Your task to perform on an android device: see sites visited before in the chrome app Image 0: 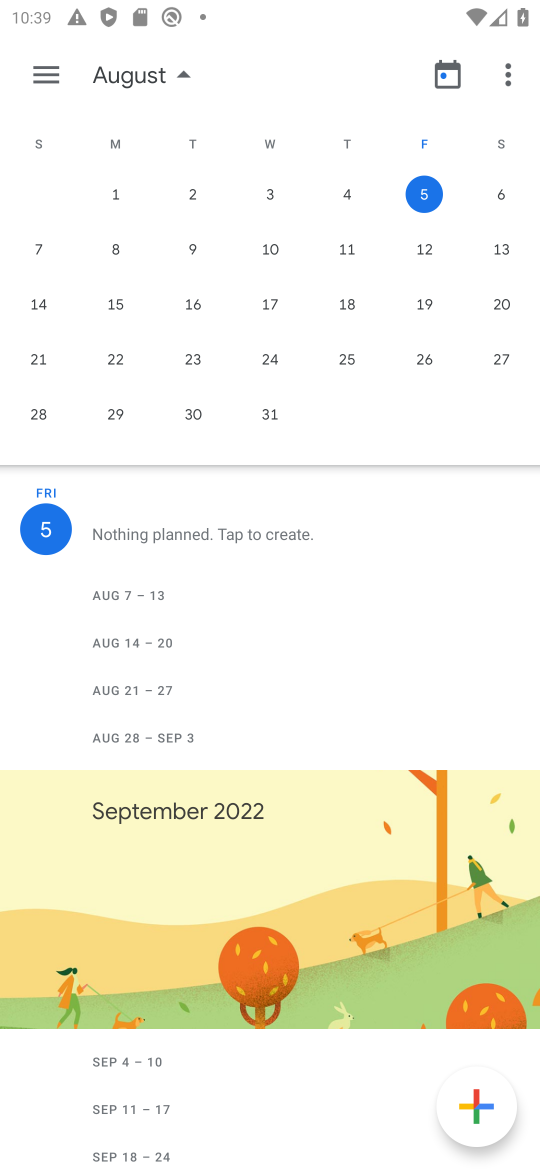
Step 0: press home button
Your task to perform on an android device: see sites visited before in the chrome app Image 1: 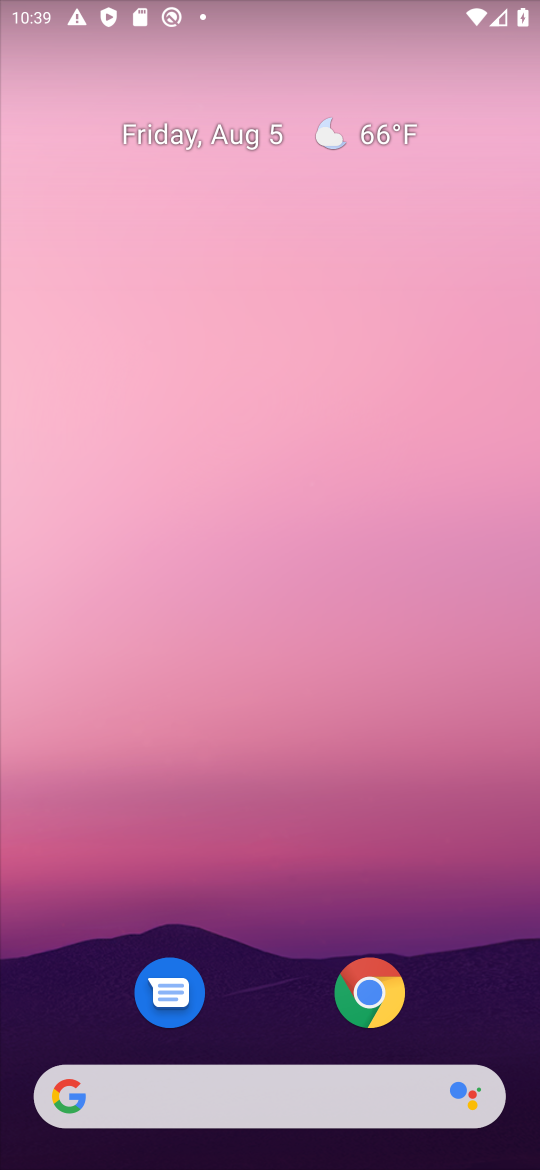
Step 1: drag from (267, 1009) to (426, 324)
Your task to perform on an android device: see sites visited before in the chrome app Image 2: 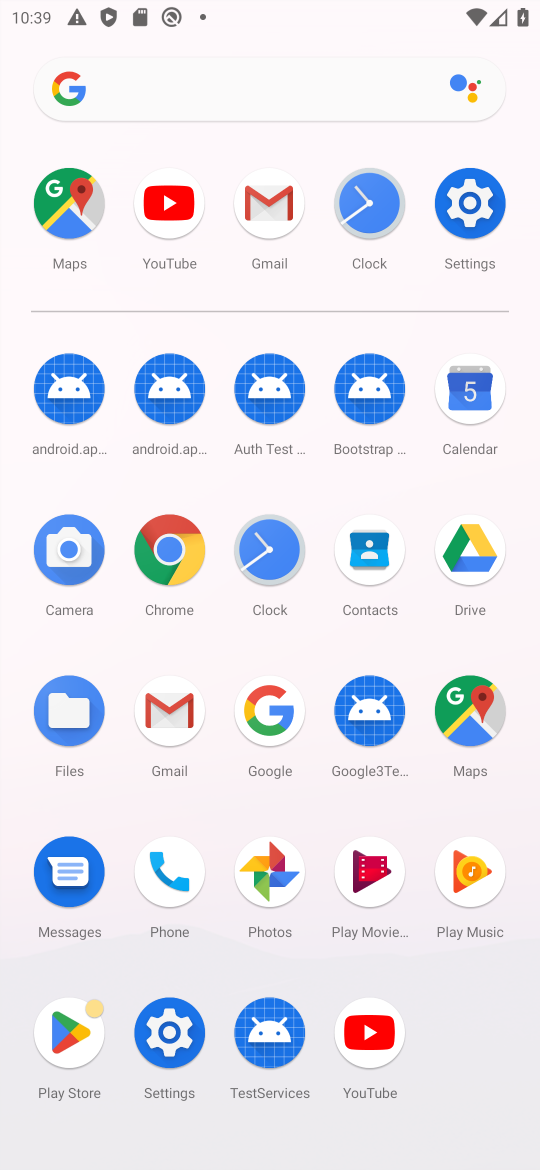
Step 2: click (164, 574)
Your task to perform on an android device: see sites visited before in the chrome app Image 3: 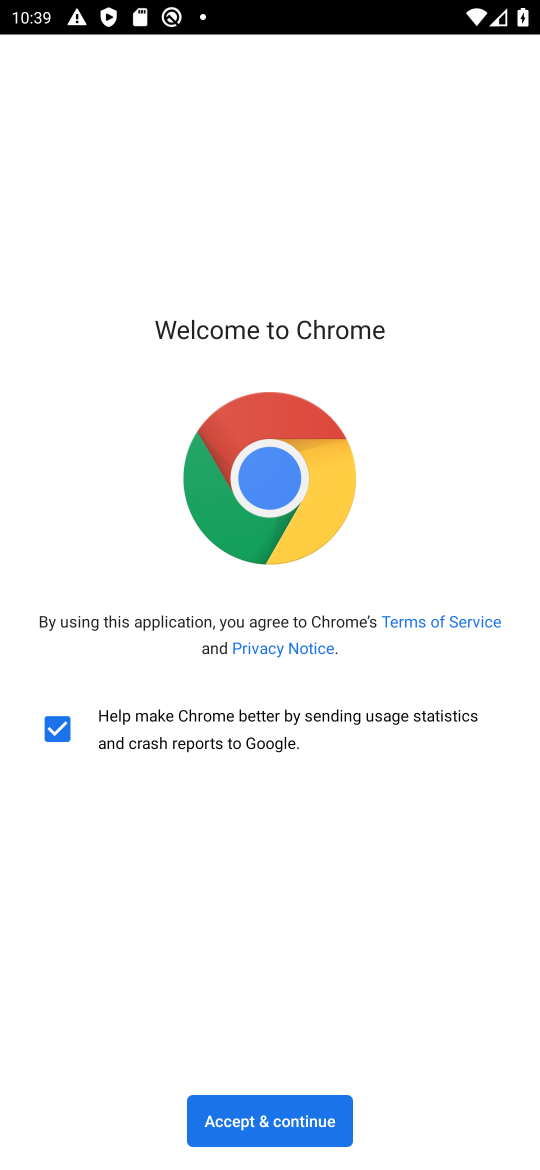
Step 3: click (295, 1115)
Your task to perform on an android device: see sites visited before in the chrome app Image 4: 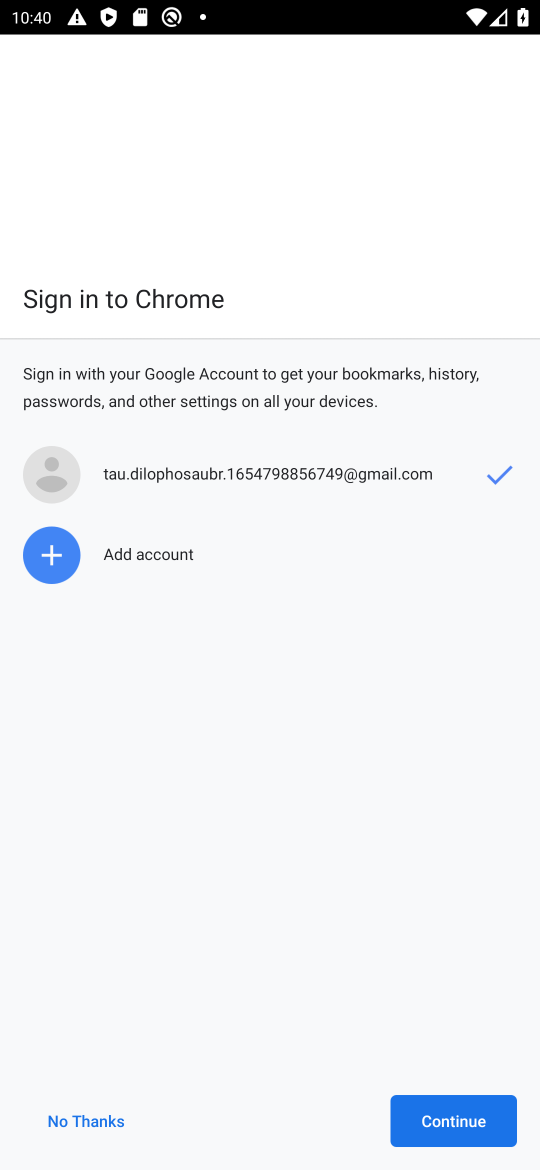
Step 4: click (496, 1137)
Your task to perform on an android device: see sites visited before in the chrome app Image 5: 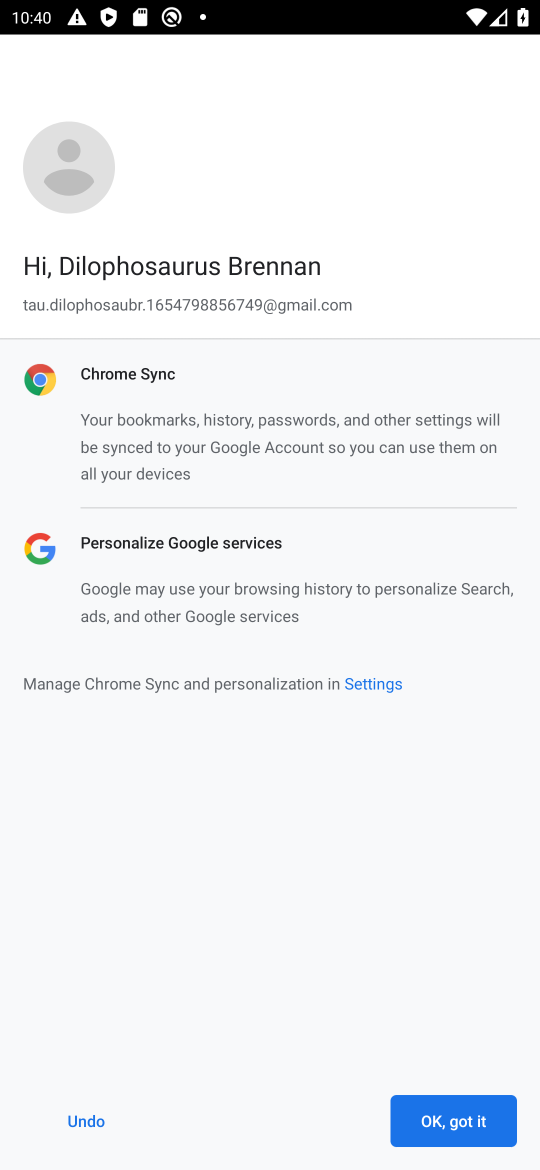
Step 5: click (501, 1114)
Your task to perform on an android device: see sites visited before in the chrome app Image 6: 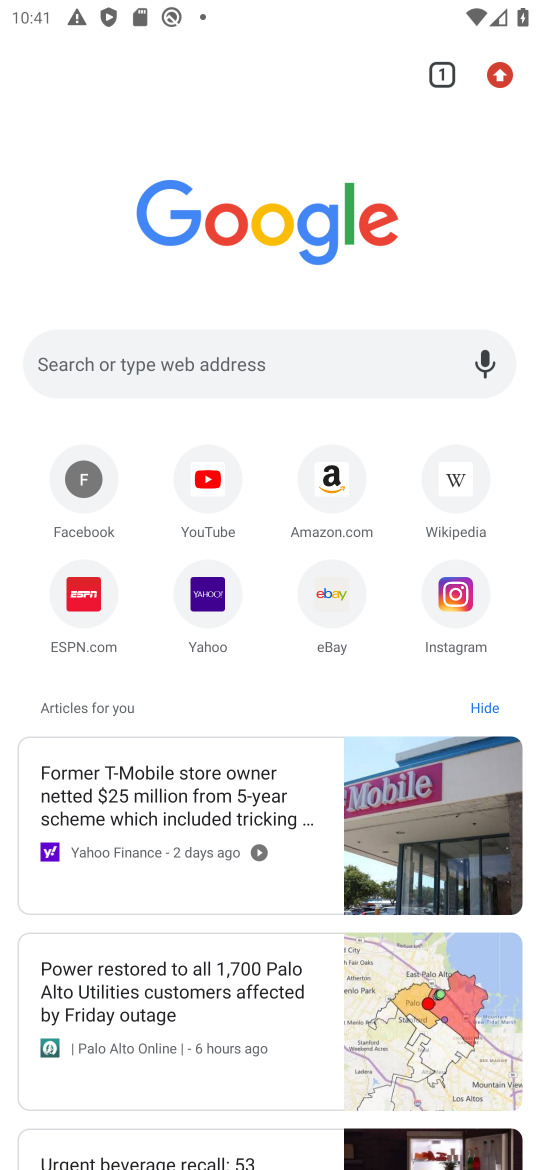
Step 6: click (504, 70)
Your task to perform on an android device: see sites visited before in the chrome app Image 7: 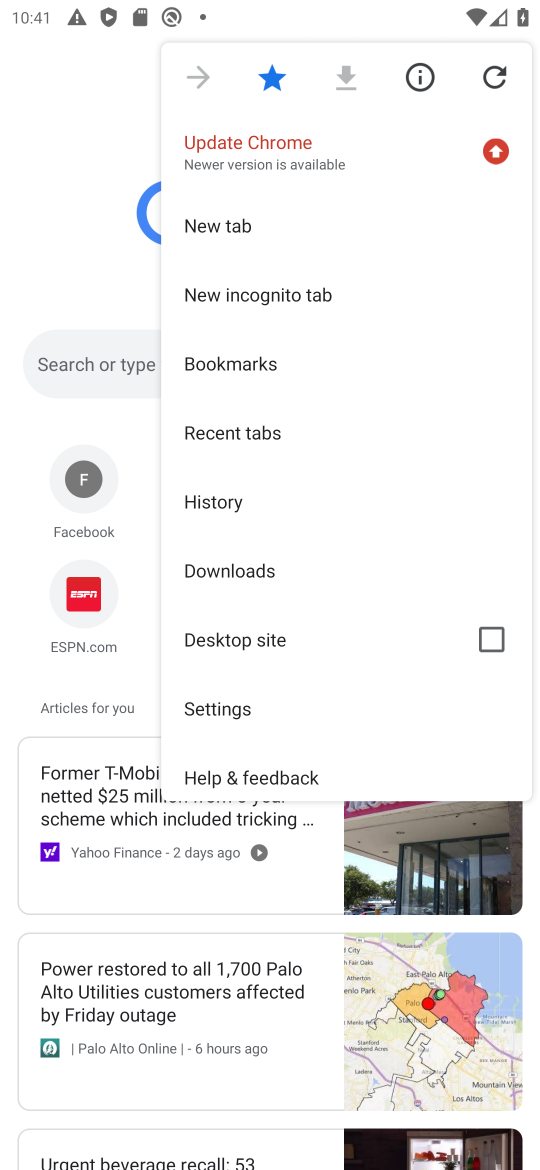
Step 7: click (242, 491)
Your task to perform on an android device: see sites visited before in the chrome app Image 8: 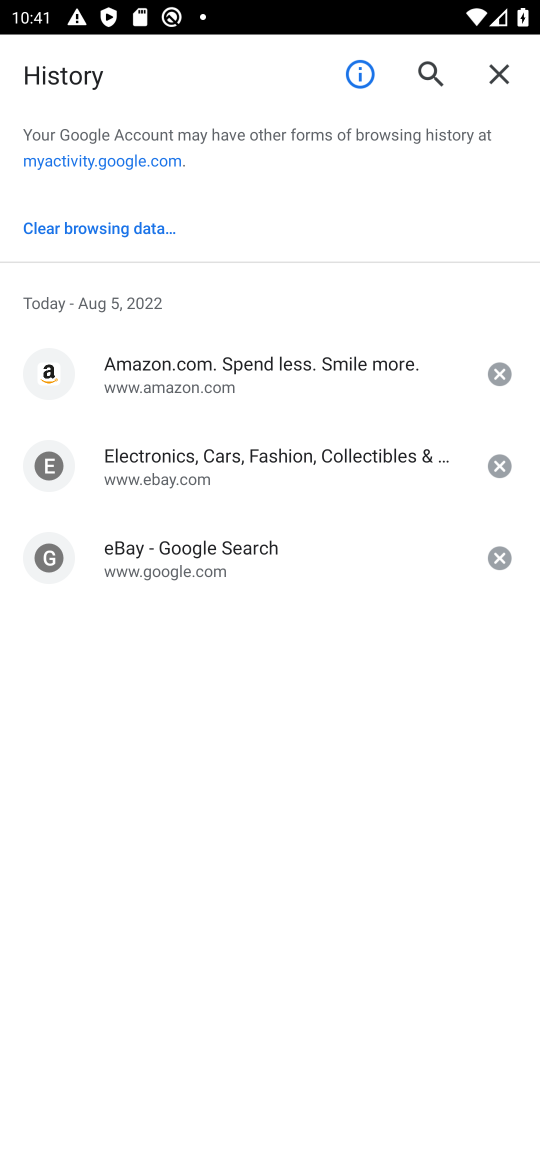
Step 8: task complete